Your task to perform on an android device: Open the phone app and click the voicemail tab. Image 0: 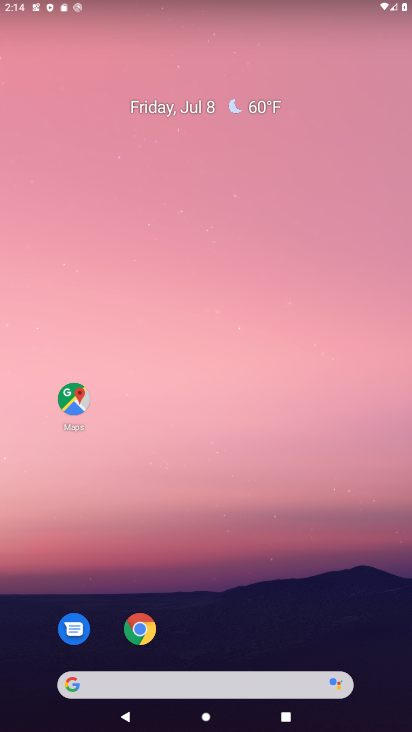
Step 0: drag from (196, 637) to (193, 153)
Your task to perform on an android device: Open the phone app and click the voicemail tab. Image 1: 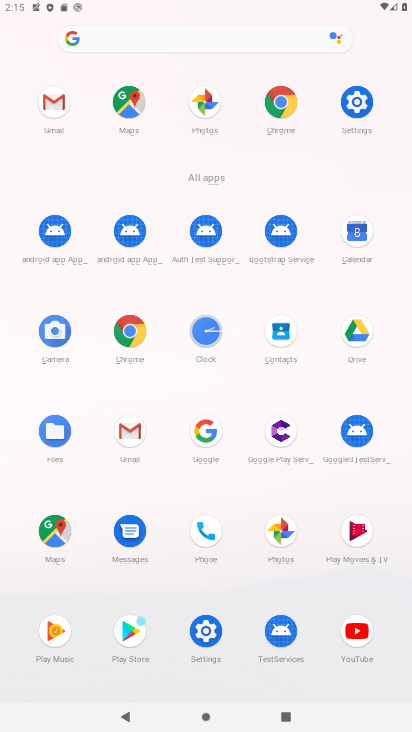
Step 1: click (207, 540)
Your task to perform on an android device: Open the phone app and click the voicemail tab. Image 2: 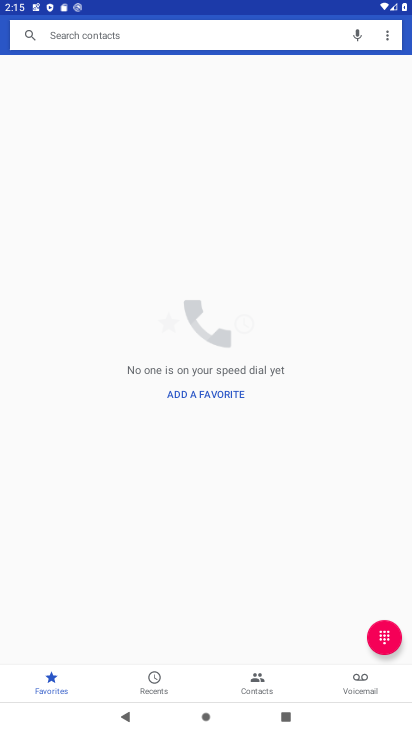
Step 2: click (356, 684)
Your task to perform on an android device: Open the phone app and click the voicemail tab. Image 3: 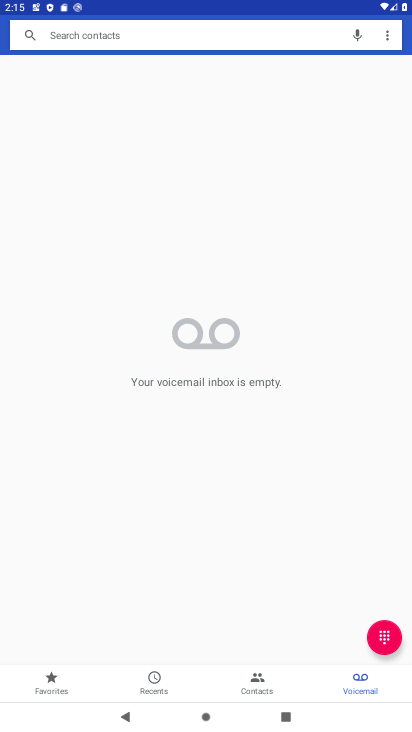
Step 3: click (355, 687)
Your task to perform on an android device: Open the phone app and click the voicemail tab. Image 4: 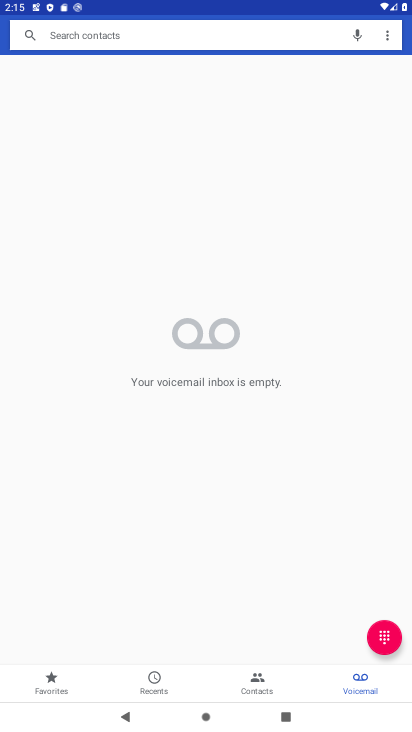
Step 4: task complete